Your task to perform on an android device: see sites visited before in the chrome app Image 0: 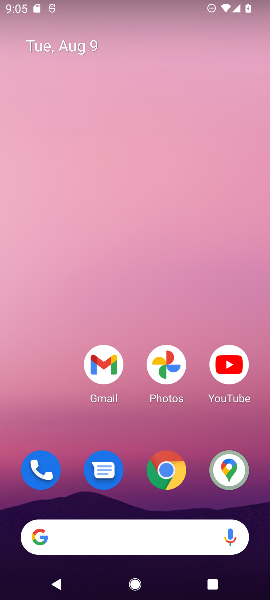
Step 0: click (165, 468)
Your task to perform on an android device: see sites visited before in the chrome app Image 1: 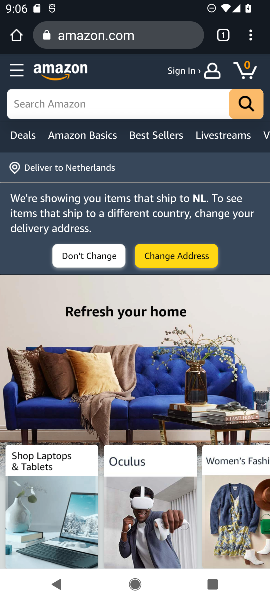
Step 1: click (257, 38)
Your task to perform on an android device: see sites visited before in the chrome app Image 2: 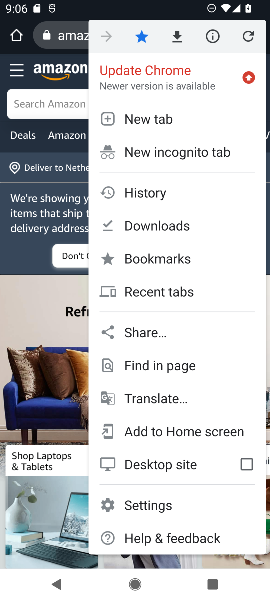
Step 2: click (156, 197)
Your task to perform on an android device: see sites visited before in the chrome app Image 3: 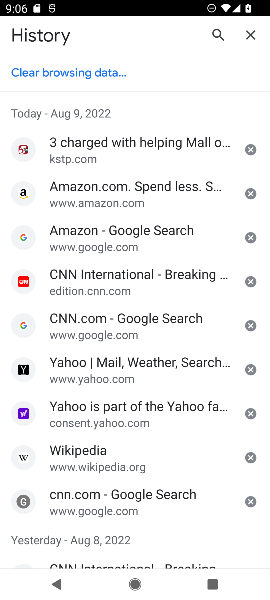
Step 3: task complete